Your task to perform on an android device: change text size in settings app Image 0: 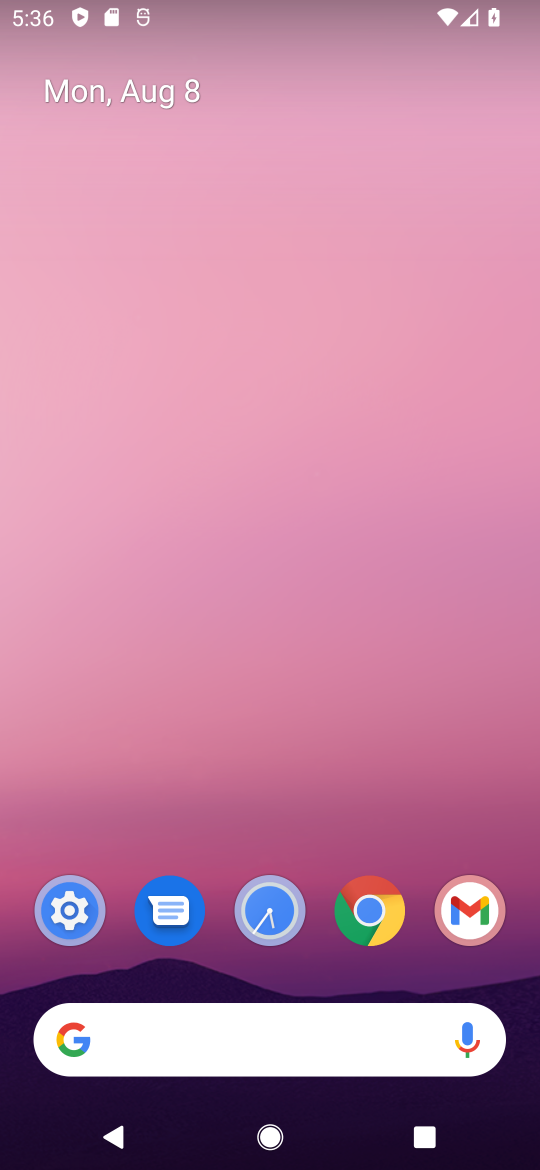
Step 0: click (74, 912)
Your task to perform on an android device: change text size in settings app Image 1: 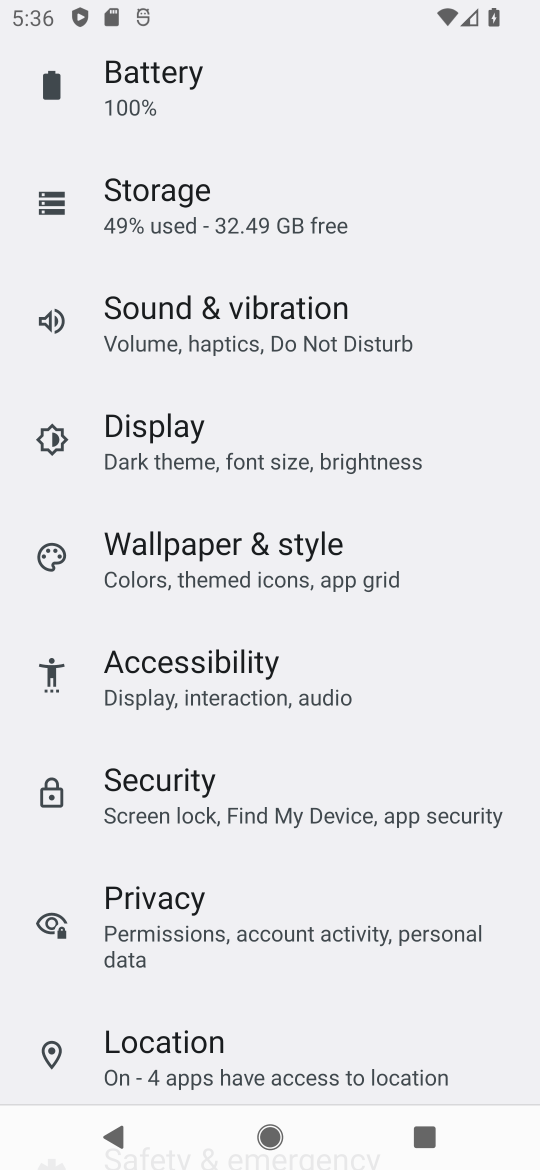
Step 1: click (217, 670)
Your task to perform on an android device: change text size in settings app Image 2: 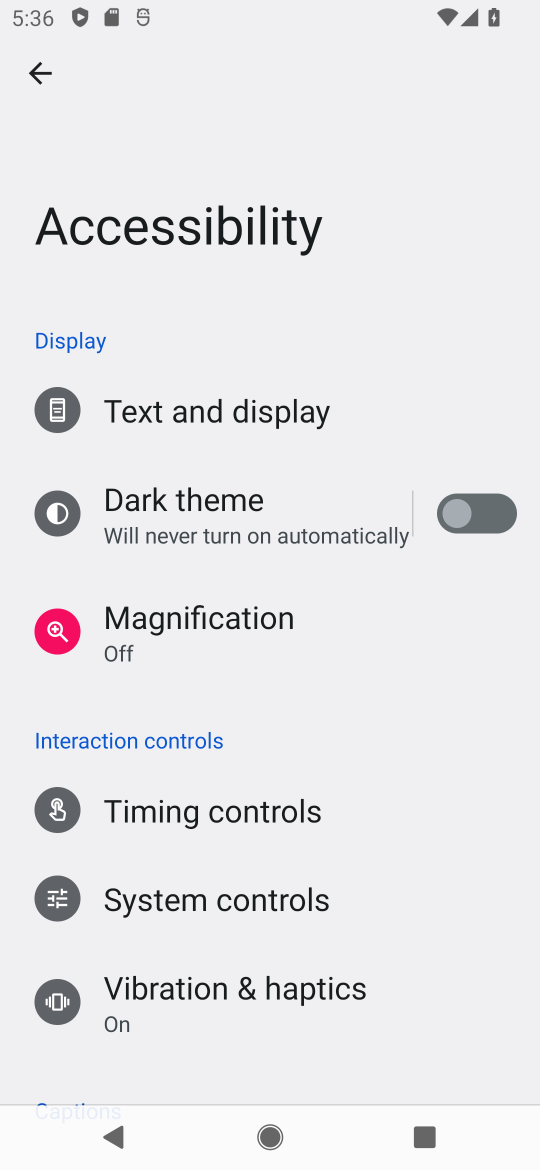
Step 2: click (236, 421)
Your task to perform on an android device: change text size in settings app Image 3: 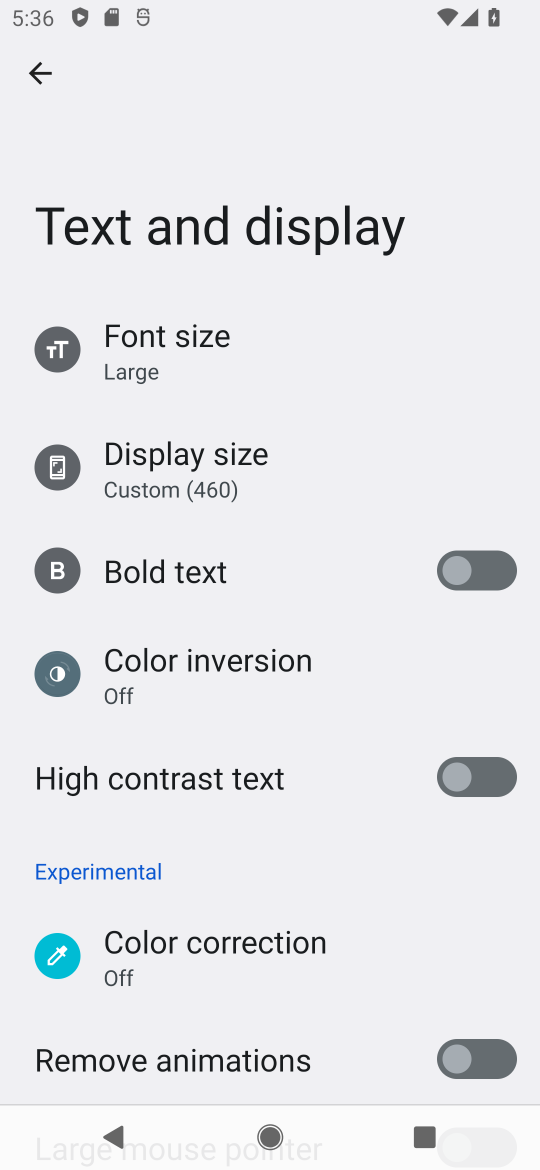
Step 3: click (250, 364)
Your task to perform on an android device: change text size in settings app Image 4: 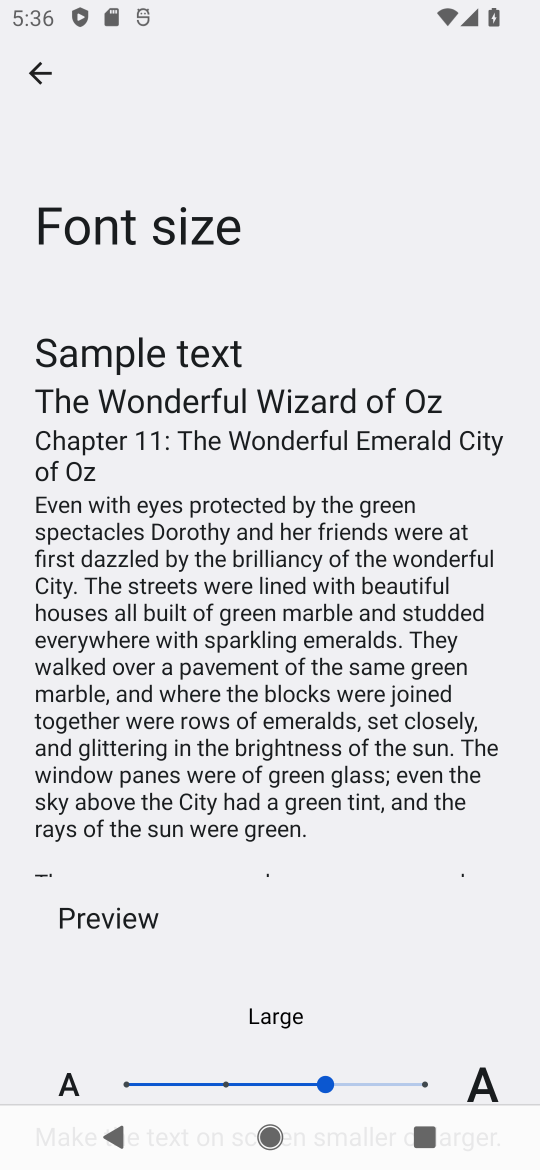
Step 4: click (426, 1080)
Your task to perform on an android device: change text size in settings app Image 5: 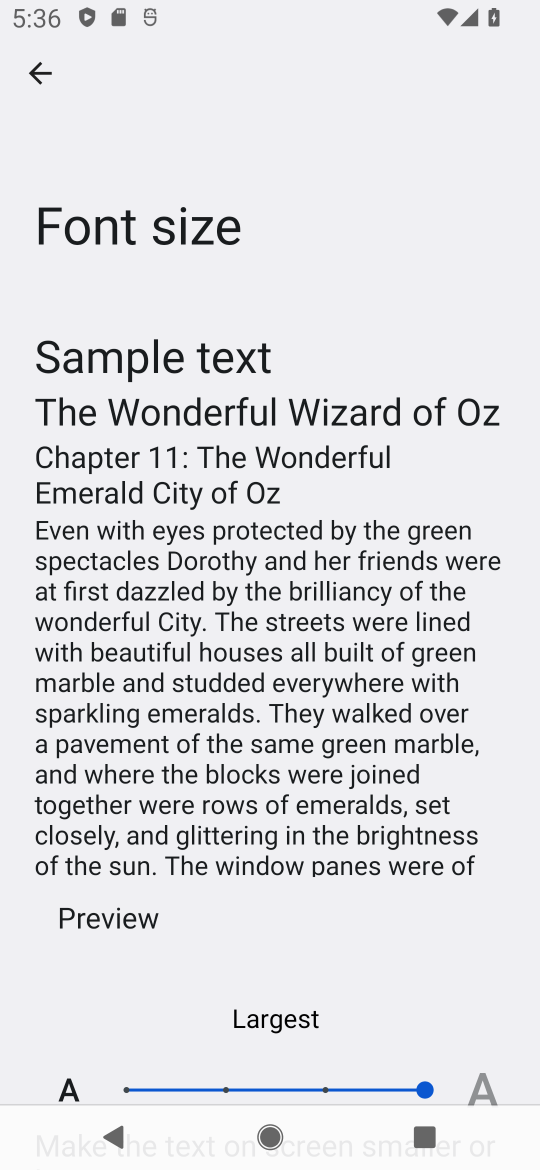
Step 5: task complete